Your task to perform on an android device: change timer sound Image 0: 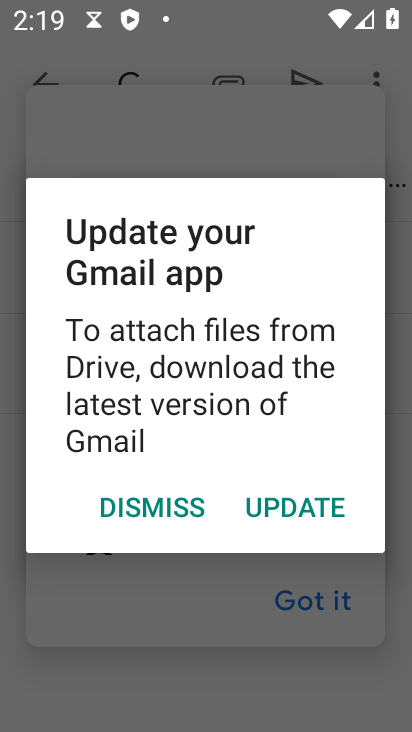
Step 0: press home button
Your task to perform on an android device: change timer sound Image 1: 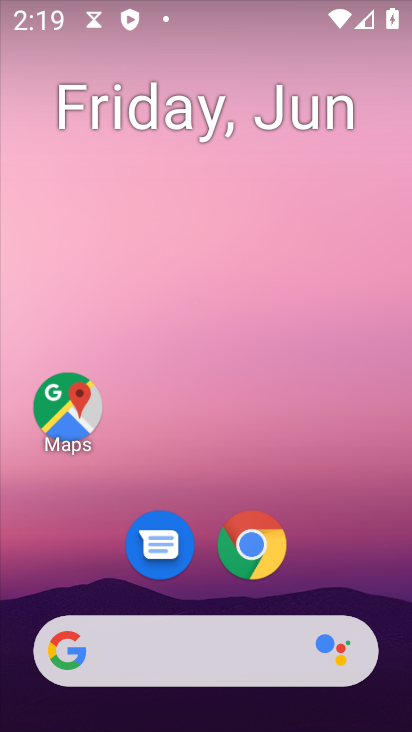
Step 1: click (240, 115)
Your task to perform on an android device: change timer sound Image 2: 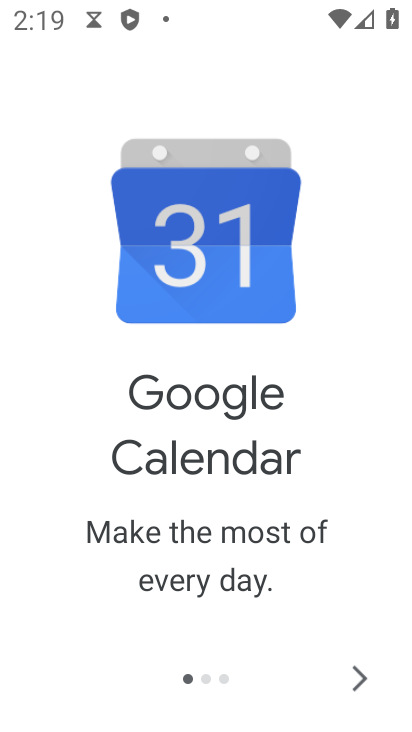
Step 2: press home button
Your task to perform on an android device: change timer sound Image 3: 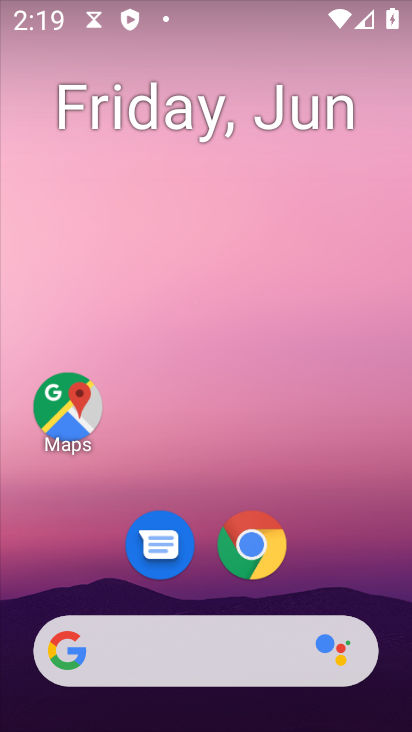
Step 3: drag from (192, 593) to (274, 6)
Your task to perform on an android device: change timer sound Image 4: 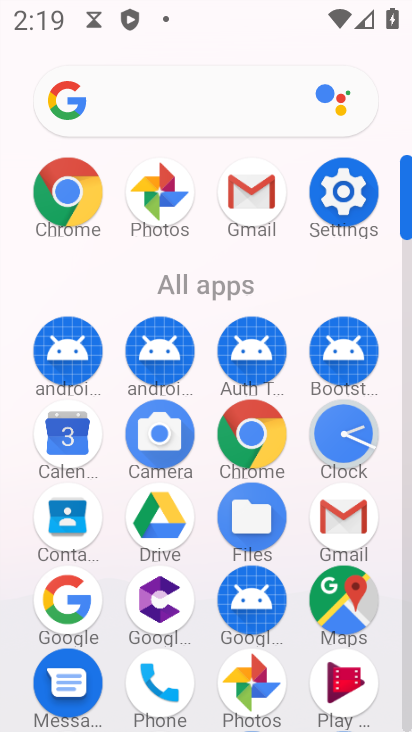
Step 4: drag from (209, 568) to (224, 348)
Your task to perform on an android device: change timer sound Image 5: 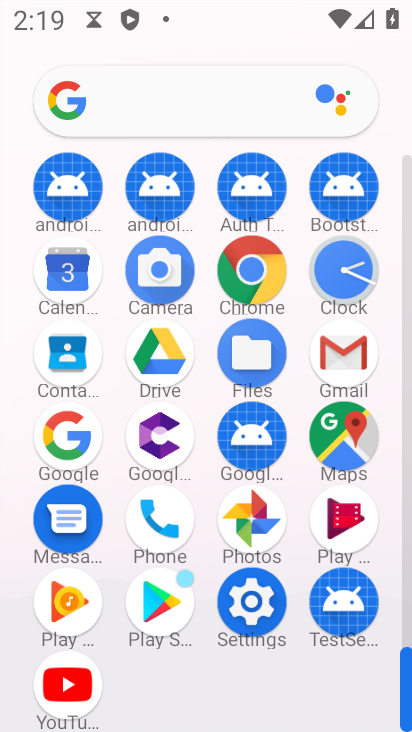
Step 5: click (353, 273)
Your task to perform on an android device: change timer sound Image 6: 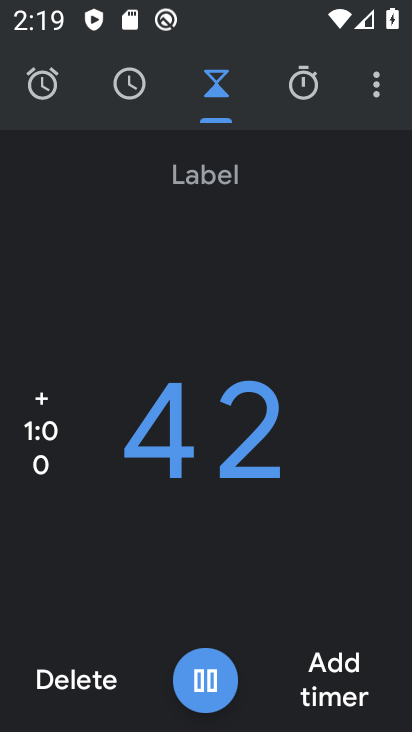
Step 6: click (372, 92)
Your task to perform on an android device: change timer sound Image 7: 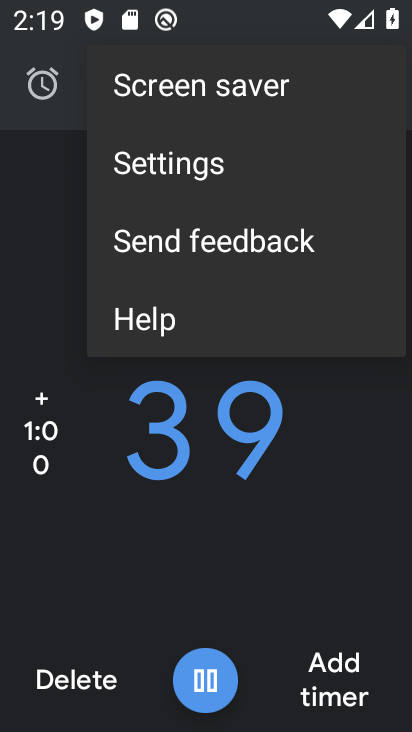
Step 7: click (190, 163)
Your task to perform on an android device: change timer sound Image 8: 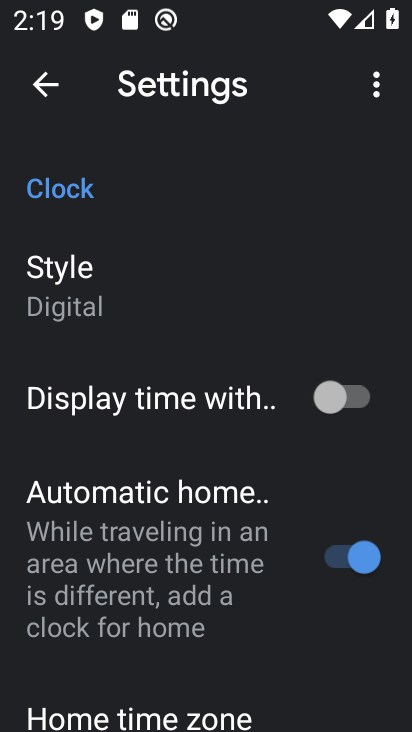
Step 8: drag from (185, 556) to (268, 143)
Your task to perform on an android device: change timer sound Image 9: 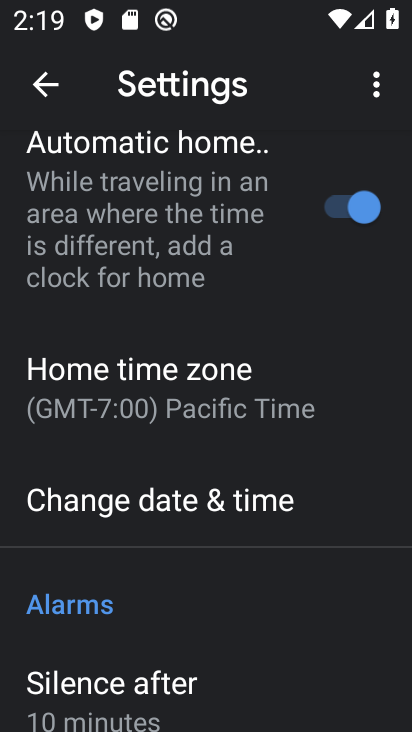
Step 9: drag from (208, 534) to (248, 248)
Your task to perform on an android device: change timer sound Image 10: 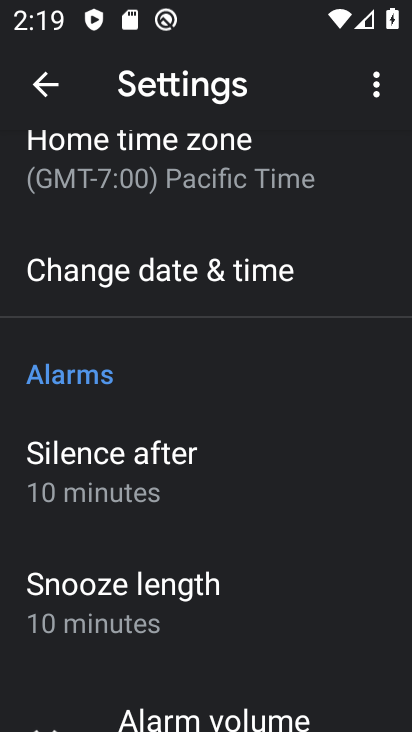
Step 10: drag from (160, 648) to (196, 249)
Your task to perform on an android device: change timer sound Image 11: 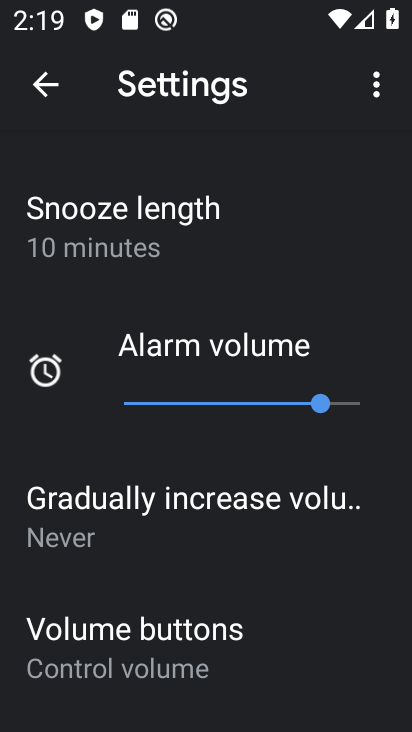
Step 11: drag from (152, 643) to (180, 357)
Your task to perform on an android device: change timer sound Image 12: 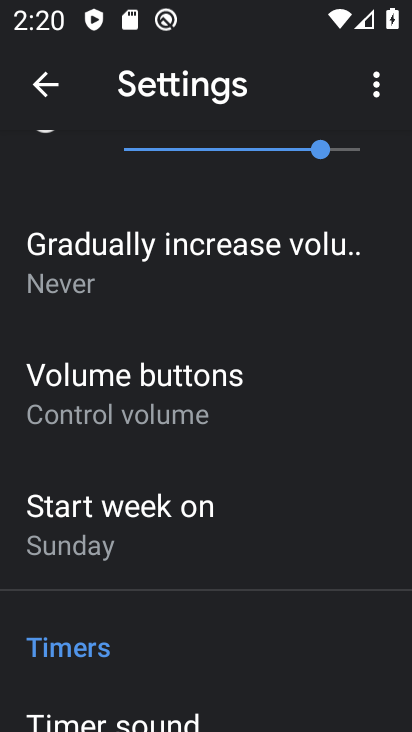
Step 12: drag from (140, 622) to (160, 403)
Your task to perform on an android device: change timer sound Image 13: 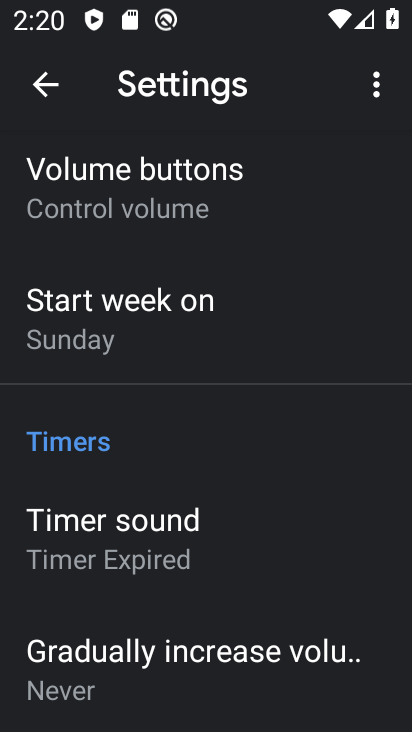
Step 13: click (156, 533)
Your task to perform on an android device: change timer sound Image 14: 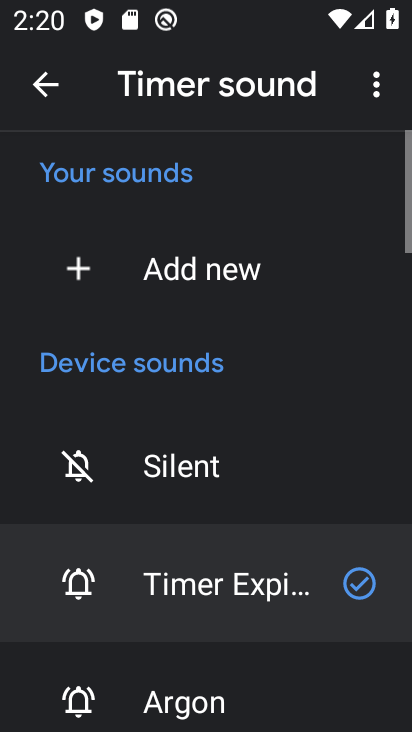
Step 14: drag from (168, 643) to (205, 446)
Your task to perform on an android device: change timer sound Image 15: 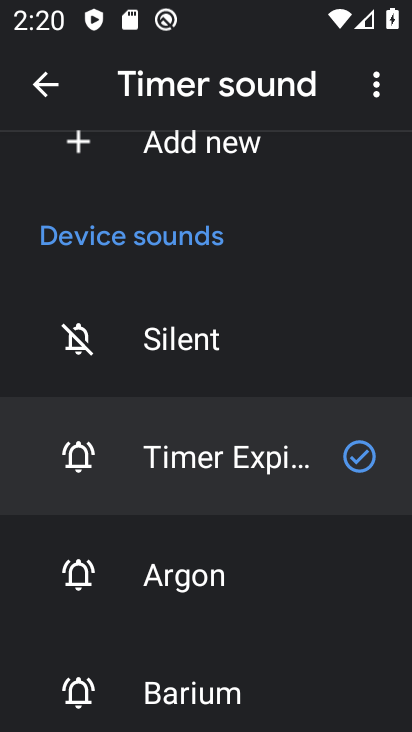
Step 15: click (212, 679)
Your task to perform on an android device: change timer sound Image 16: 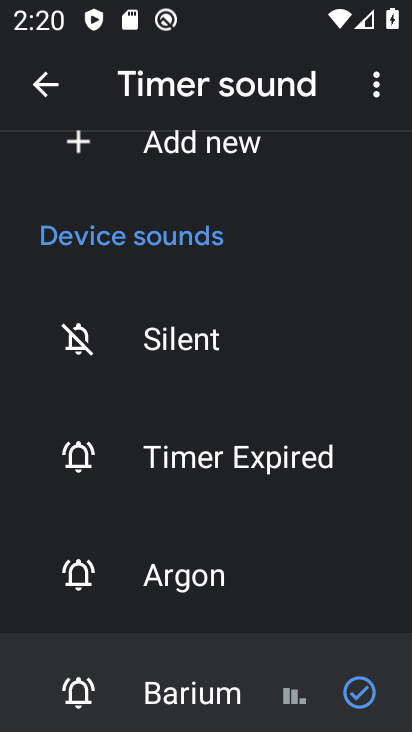
Step 16: task complete